Your task to perform on an android device: find snoozed emails in the gmail app Image 0: 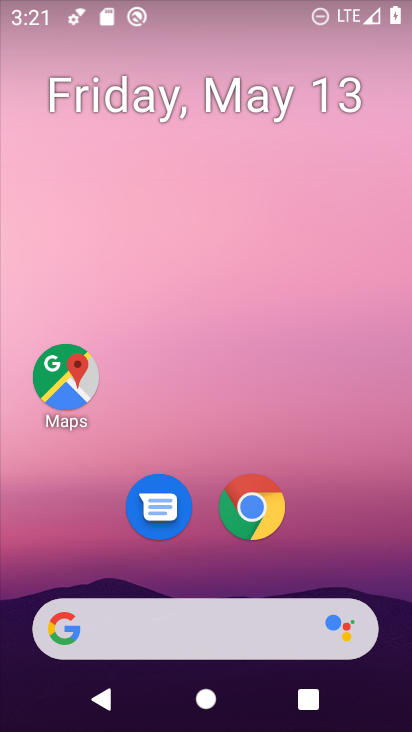
Step 0: drag from (198, 312) to (198, 121)
Your task to perform on an android device: find snoozed emails in the gmail app Image 1: 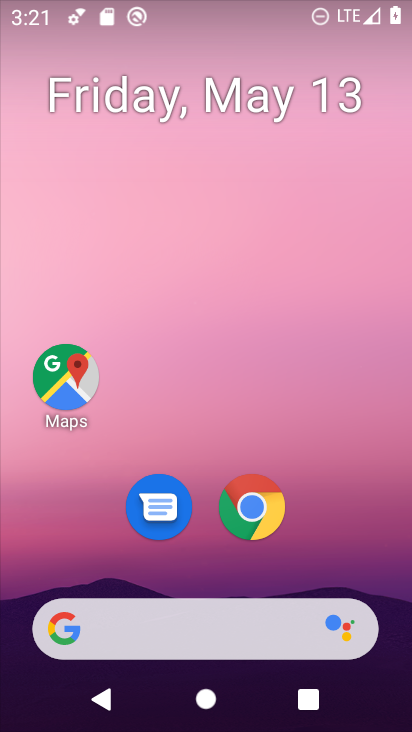
Step 1: drag from (252, 213) to (268, 120)
Your task to perform on an android device: find snoozed emails in the gmail app Image 2: 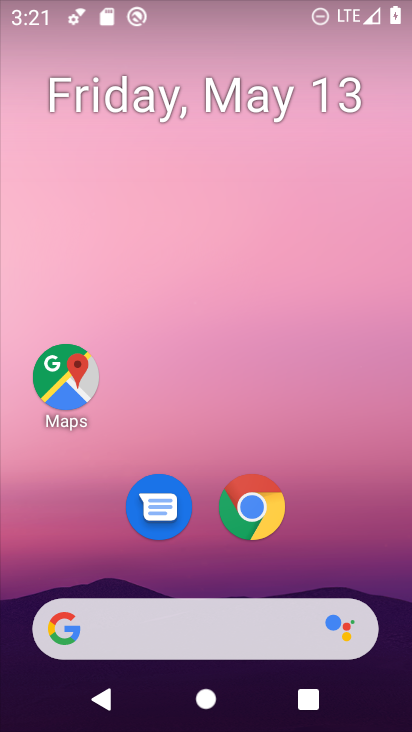
Step 2: drag from (162, 677) to (295, 81)
Your task to perform on an android device: find snoozed emails in the gmail app Image 3: 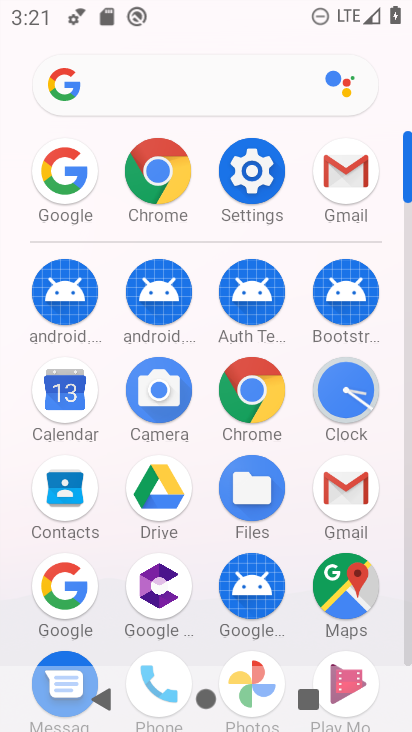
Step 3: click (335, 185)
Your task to perform on an android device: find snoozed emails in the gmail app Image 4: 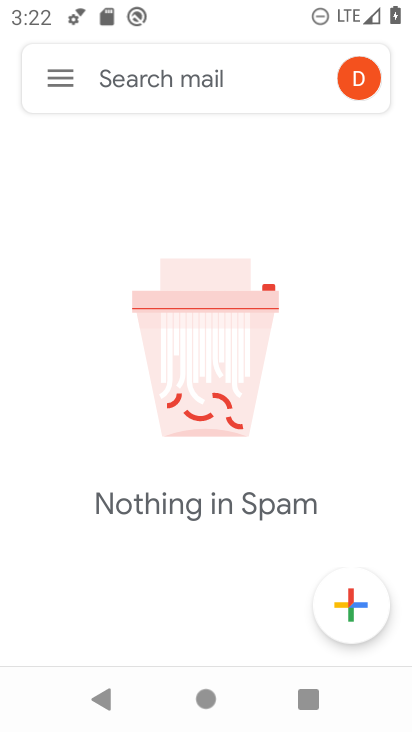
Step 4: click (61, 76)
Your task to perform on an android device: find snoozed emails in the gmail app Image 5: 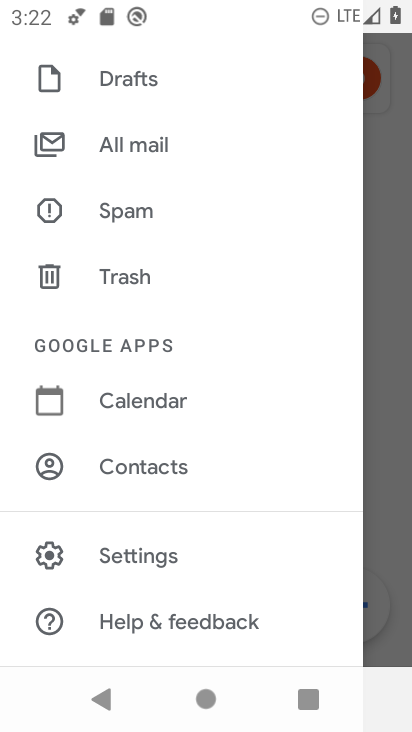
Step 5: drag from (311, 511) to (311, 136)
Your task to perform on an android device: find snoozed emails in the gmail app Image 6: 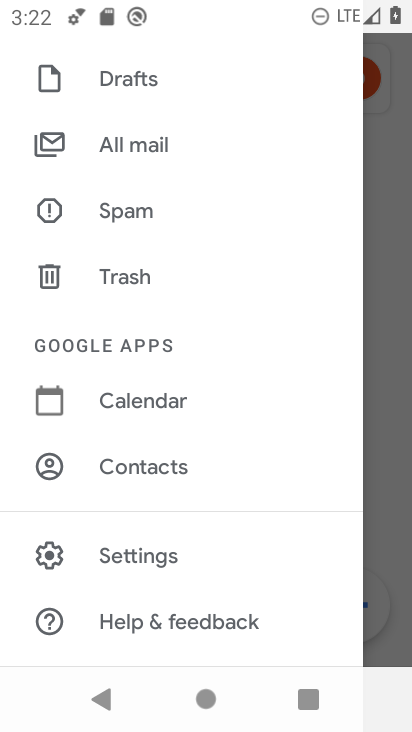
Step 6: drag from (248, 93) to (219, 614)
Your task to perform on an android device: find snoozed emails in the gmail app Image 7: 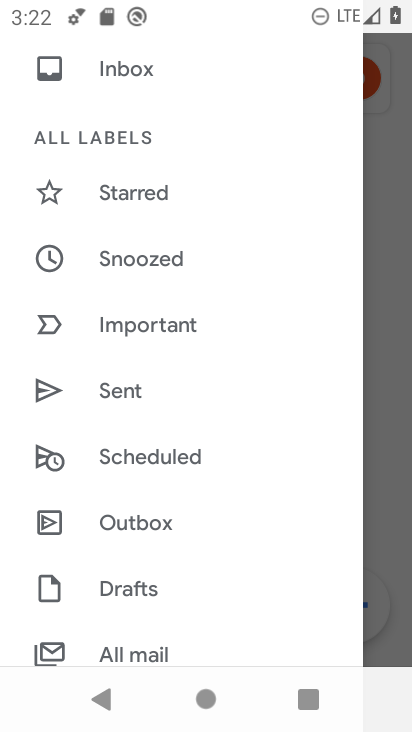
Step 7: click (135, 263)
Your task to perform on an android device: find snoozed emails in the gmail app Image 8: 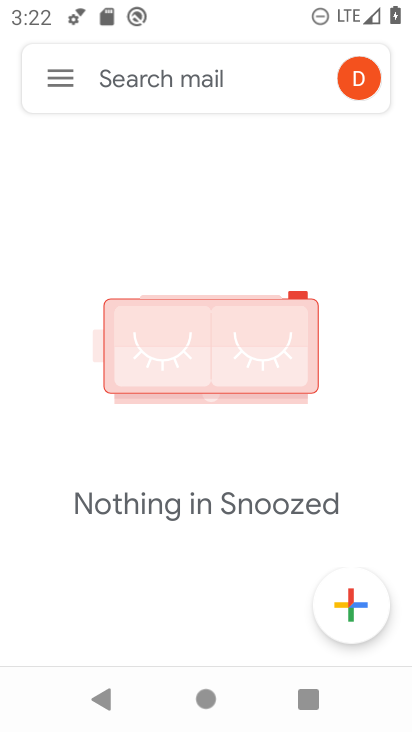
Step 8: task complete